Your task to perform on an android device: delete browsing data in the chrome app Image 0: 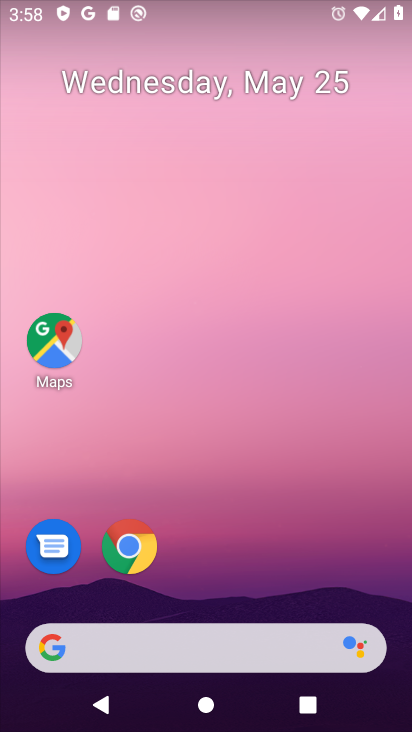
Step 0: click (124, 536)
Your task to perform on an android device: delete browsing data in the chrome app Image 1: 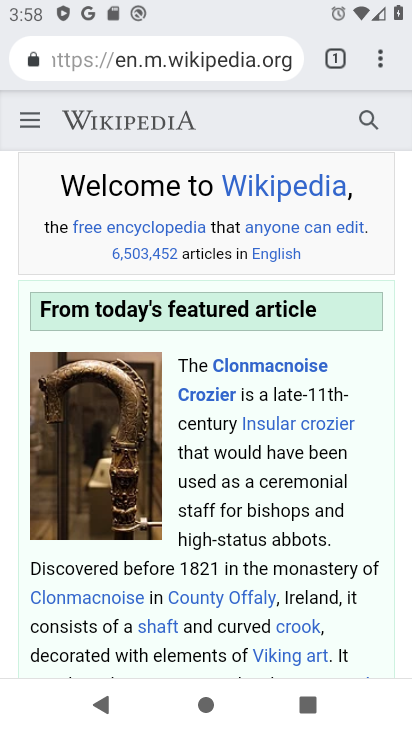
Step 1: click (381, 69)
Your task to perform on an android device: delete browsing data in the chrome app Image 2: 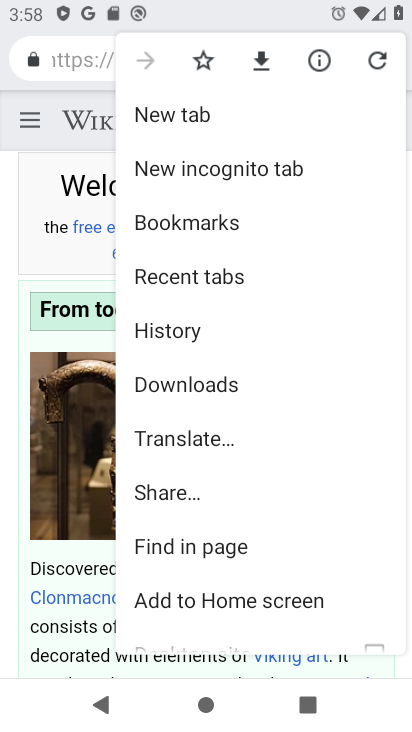
Step 2: click (212, 339)
Your task to perform on an android device: delete browsing data in the chrome app Image 3: 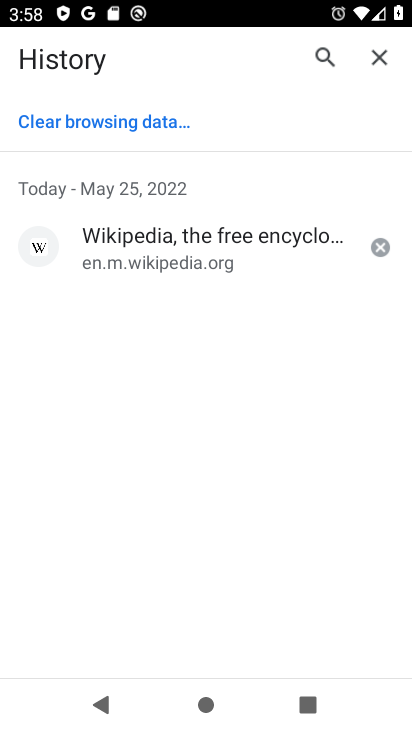
Step 3: click (121, 127)
Your task to perform on an android device: delete browsing data in the chrome app Image 4: 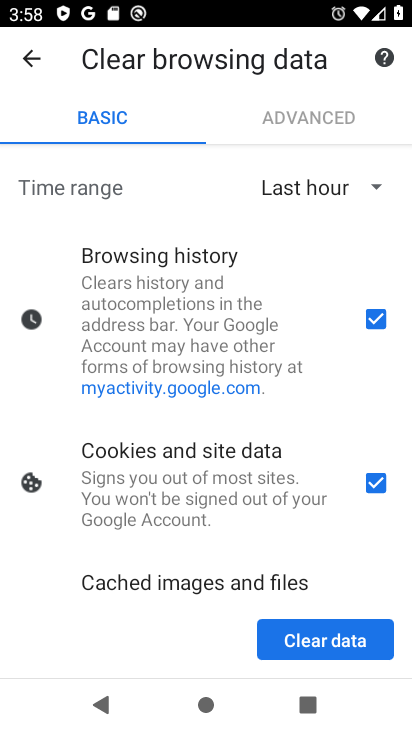
Step 4: click (309, 639)
Your task to perform on an android device: delete browsing data in the chrome app Image 5: 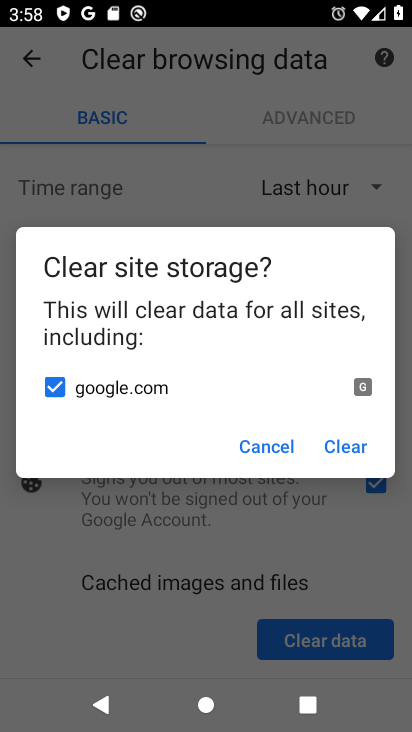
Step 5: click (362, 452)
Your task to perform on an android device: delete browsing data in the chrome app Image 6: 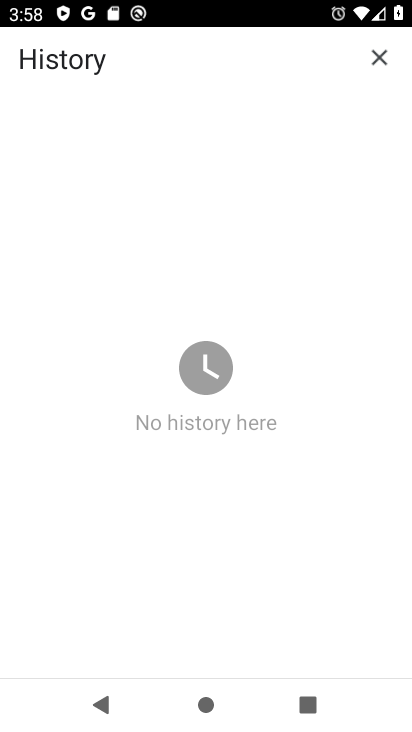
Step 6: task complete